Your task to perform on an android device: Show me recent news Image 0: 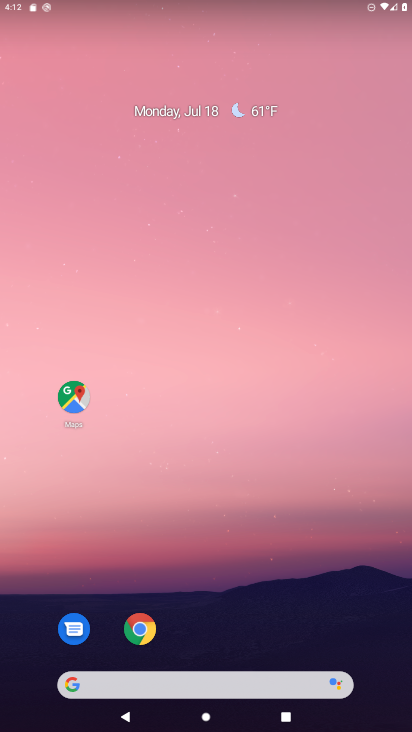
Step 0: drag from (227, 661) to (265, 312)
Your task to perform on an android device: Show me recent news Image 1: 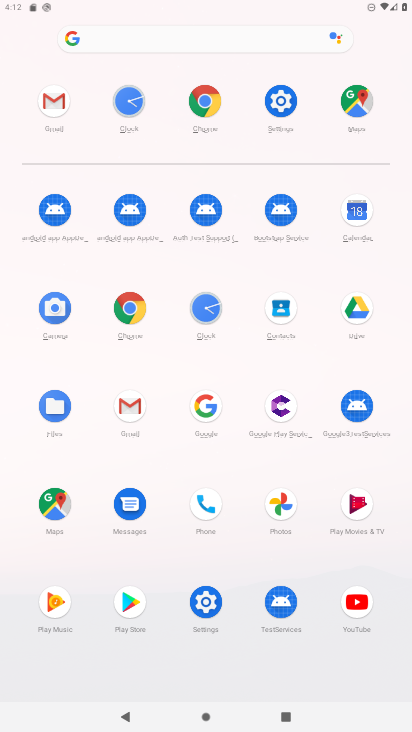
Step 1: click (209, 406)
Your task to perform on an android device: Show me recent news Image 2: 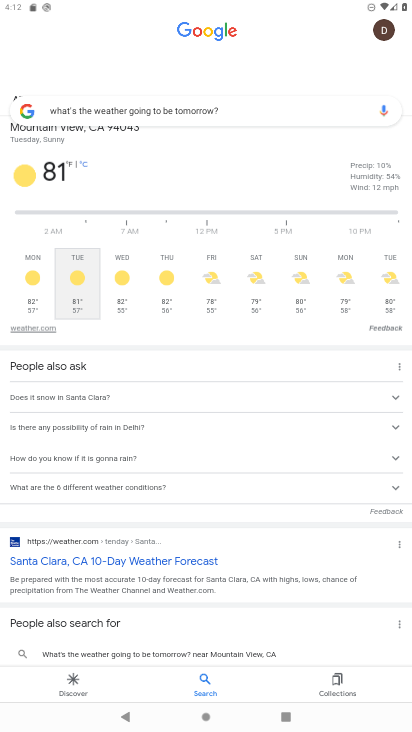
Step 2: click (276, 109)
Your task to perform on an android device: Show me recent news Image 3: 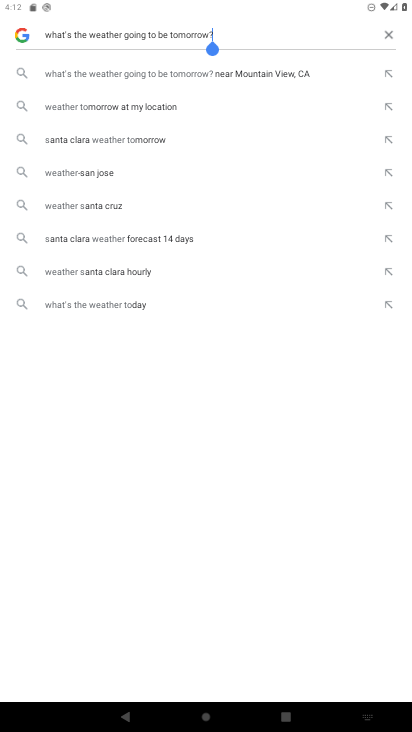
Step 3: click (387, 32)
Your task to perform on an android device: Show me recent news Image 4: 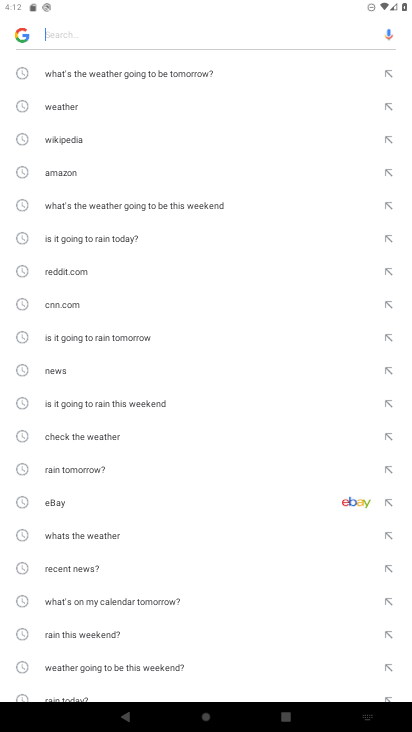
Step 4: click (77, 564)
Your task to perform on an android device: Show me recent news Image 5: 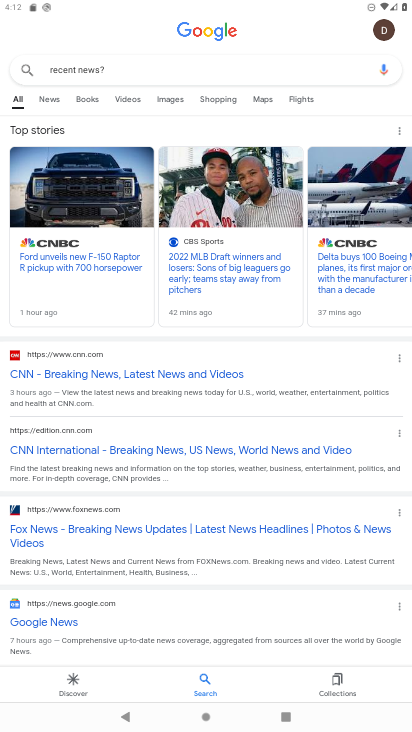
Step 5: task complete